Your task to perform on an android device: toggle translation in the chrome app Image 0: 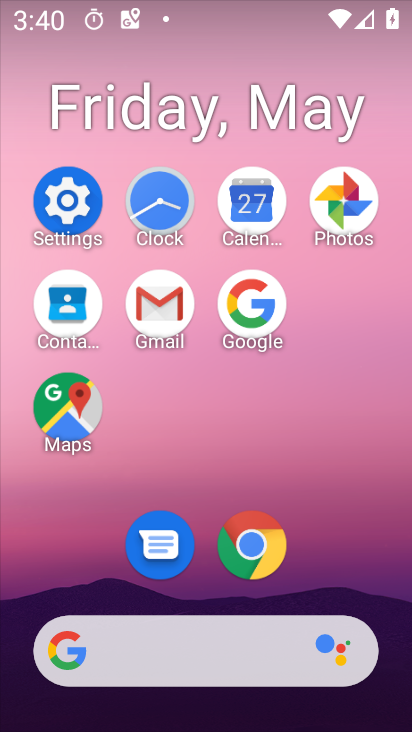
Step 0: click (270, 546)
Your task to perform on an android device: toggle translation in the chrome app Image 1: 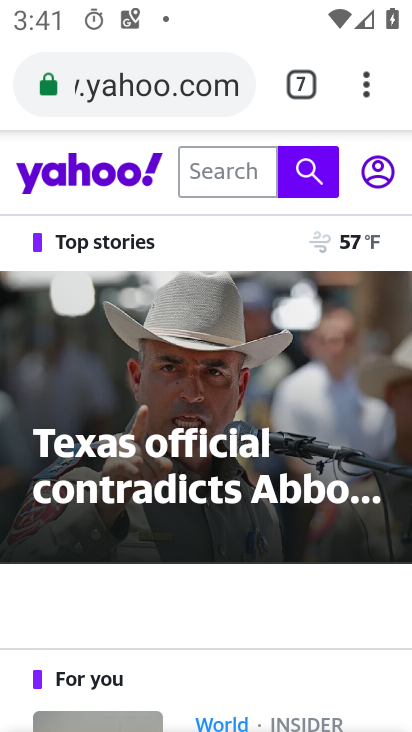
Step 1: click (359, 89)
Your task to perform on an android device: toggle translation in the chrome app Image 2: 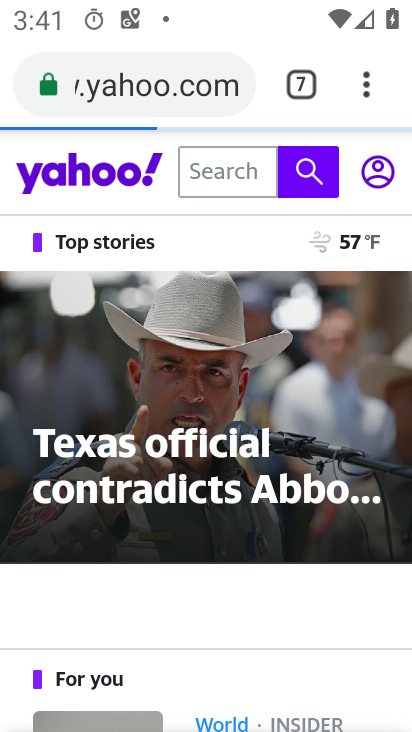
Step 2: click (379, 90)
Your task to perform on an android device: toggle translation in the chrome app Image 3: 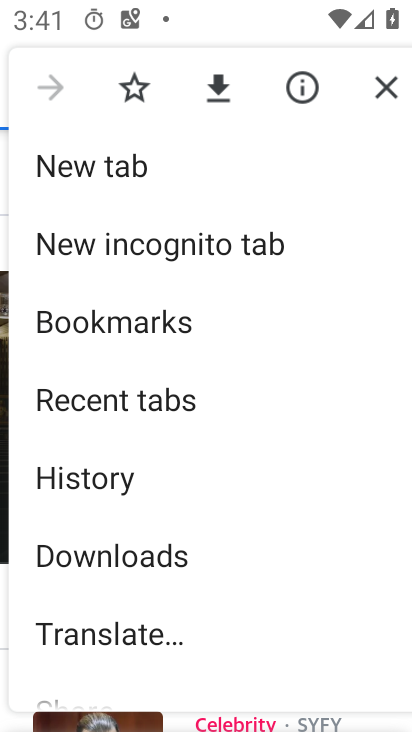
Step 3: drag from (271, 534) to (267, 206)
Your task to perform on an android device: toggle translation in the chrome app Image 4: 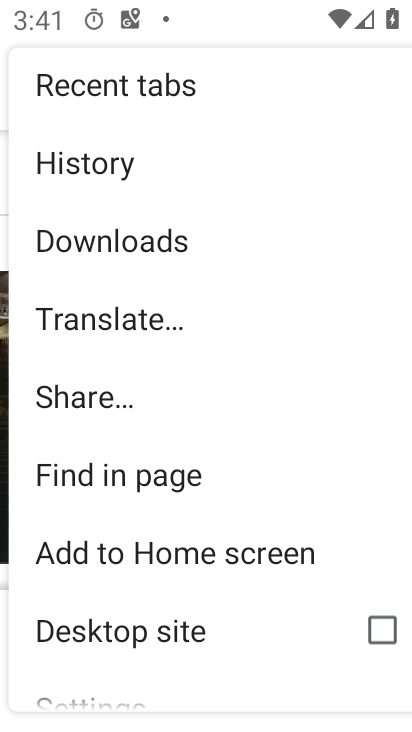
Step 4: drag from (285, 489) to (195, 145)
Your task to perform on an android device: toggle translation in the chrome app Image 5: 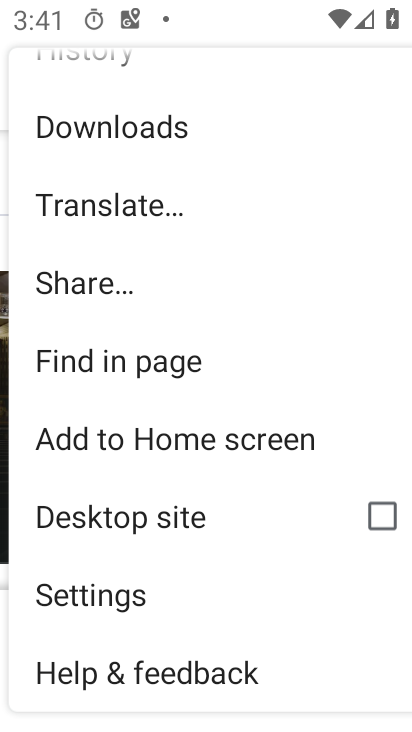
Step 5: click (160, 610)
Your task to perform on an android device: toggle translation in the chrome app Image 6: 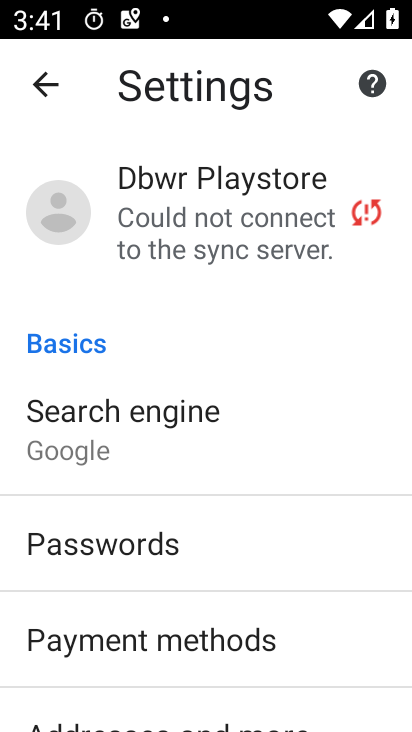
Step 6: drag from (269, 540) to (258, 79)
Your task to perform on an android device: toggle translation in the chrome app Image 7: 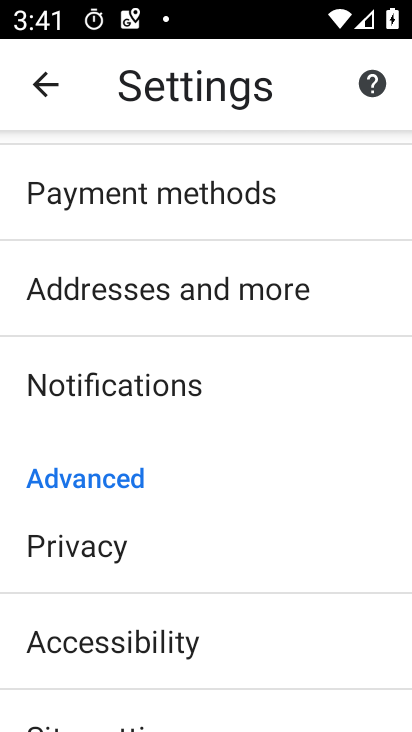
Step 7: drag from (220, 585) to (243, 151)
Your task to perform on an android device: toggle translation in the chrome app Image 8: 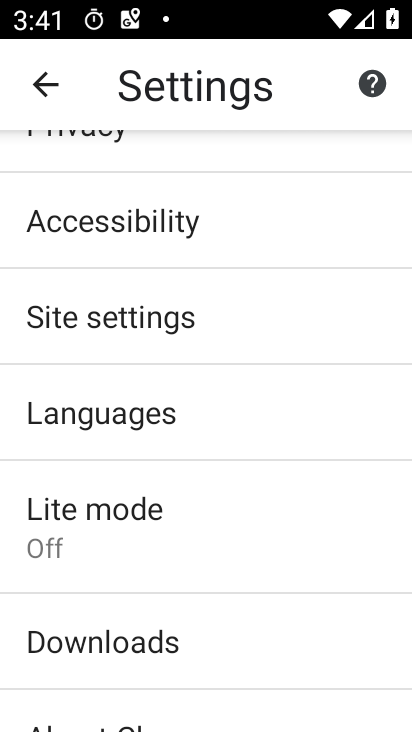
Step 8: drag from (194, 555) to (212, 198)
Your task to perform on an android device: toggle translation in the chrome app Image 9: 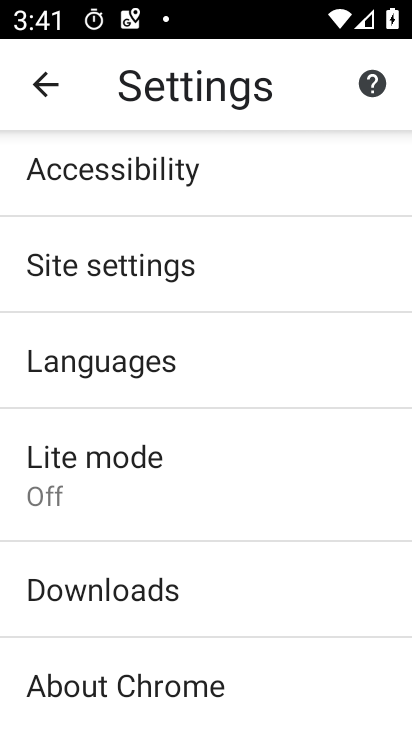
Step 9: click (222, 377)
Your task to perform on an android device: toggle translation in the chrome app Image 10: 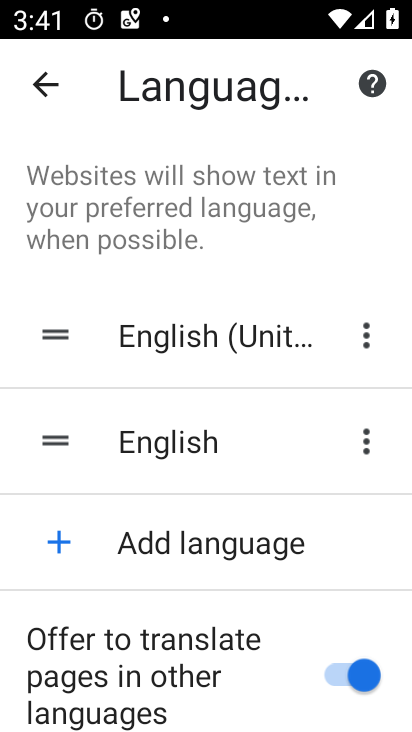
Step 10: click (371, 673)
Your task to perform on an android device: toggle translation in the chrome app Image 11: 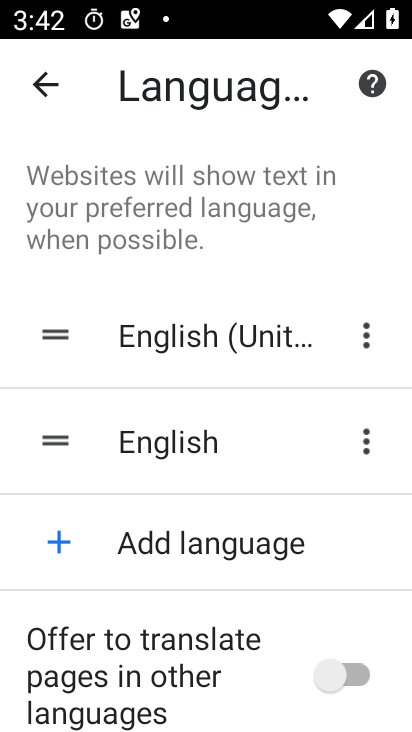
Step 11: task complete